Your task to perform on an android device: Google the capital of Colombia Image 0: 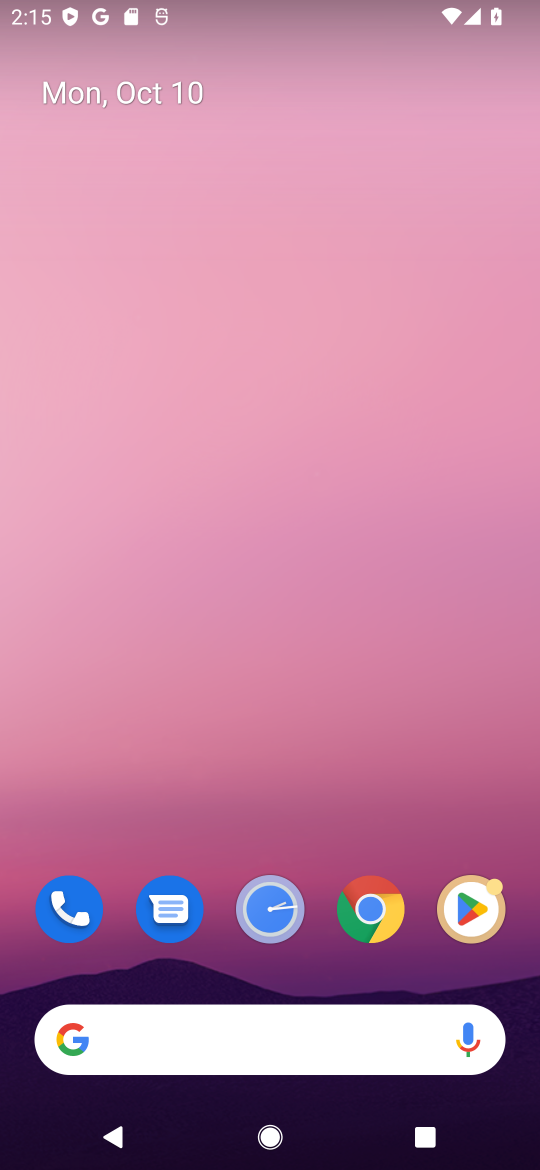
Step 0: click (370, 917)
Your task to perform on an android device: Google the capital of Colombia Image 1: 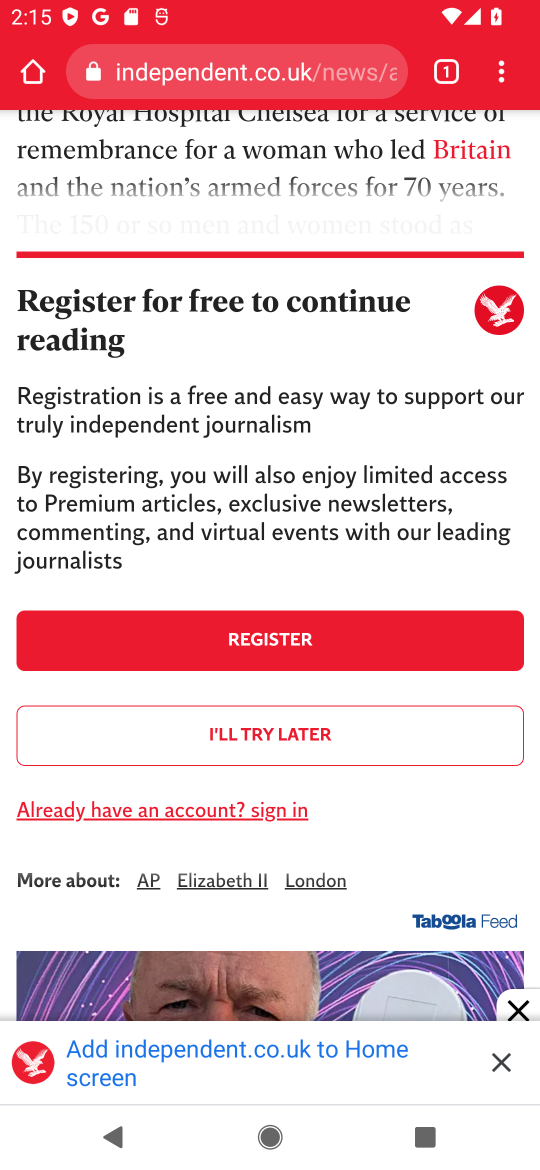
Step 1: click (247, 53)
Your task to perform on an android device: Google the capital of Colombia Image 2: 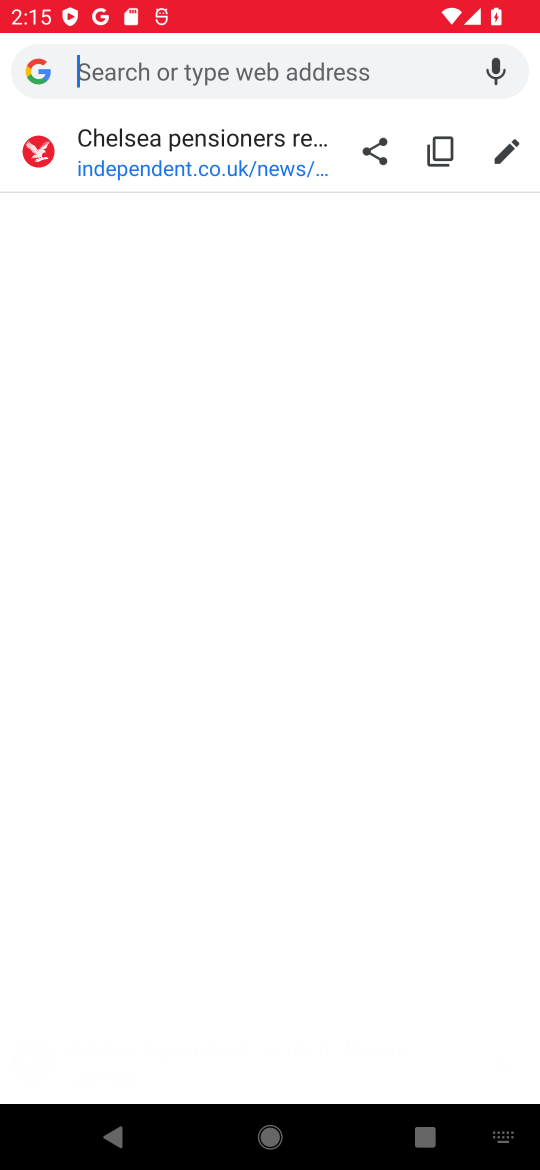
Step 2: type "capital of Colombia"
Your task to perform on an android device: Google the capital of Colombia Image 3: 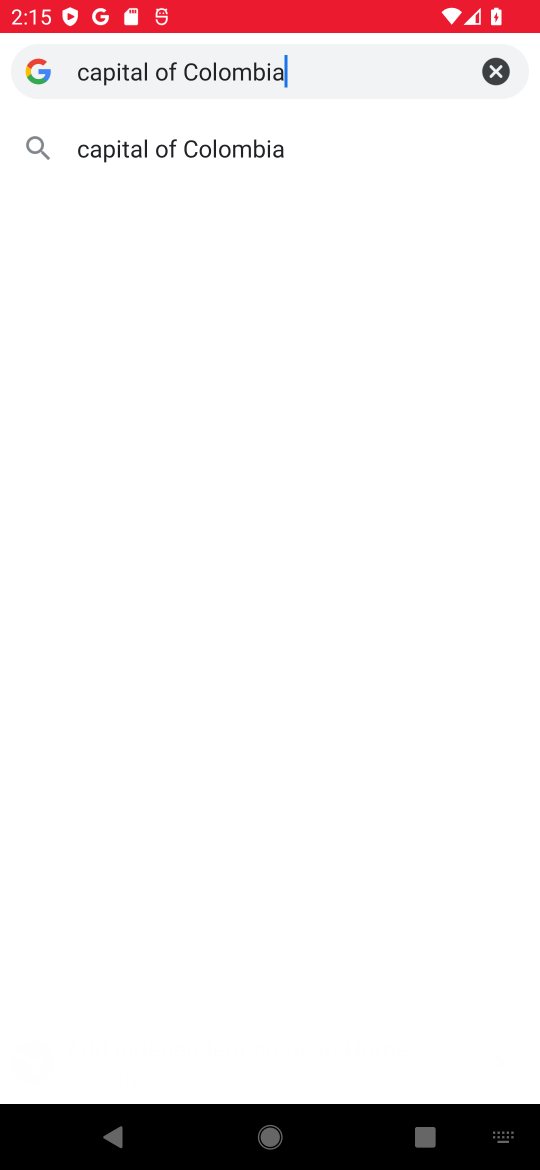
Step 3: click (199, 153)
Your task to perform on an android device: Google the capital of Colombia Image 4: 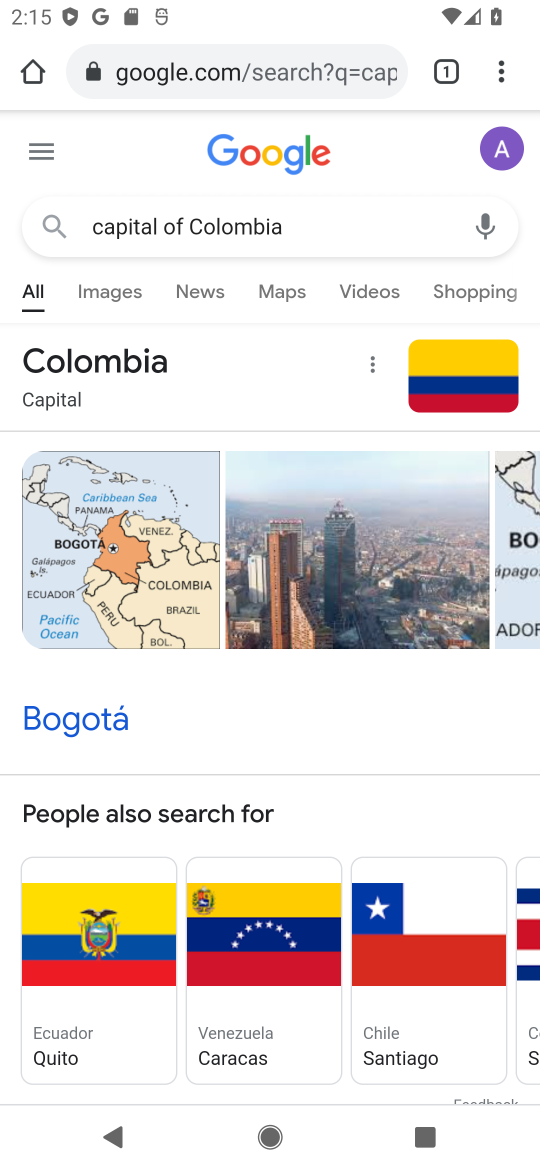
Step 4: task complete